Your task to perform on an android device: set the stopwatch Image 0: 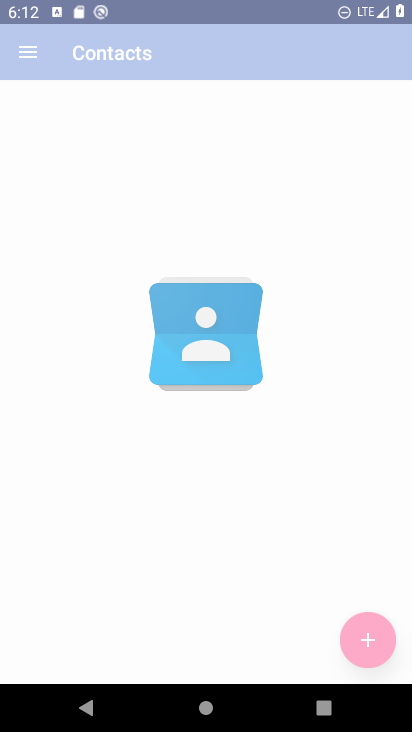
Step 0: drag from (215, 668) to (214, 175)
Your task to perform on an android device: set the stopwatch Image 1: 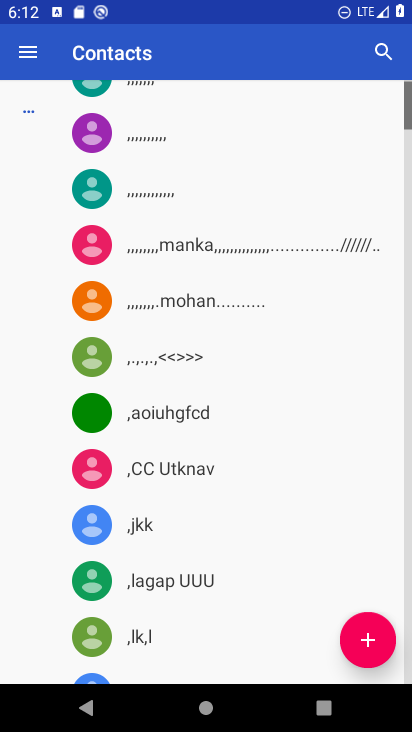
Step 1: press home button
Your task to perform on an android device: set the stopwatch Image 2: 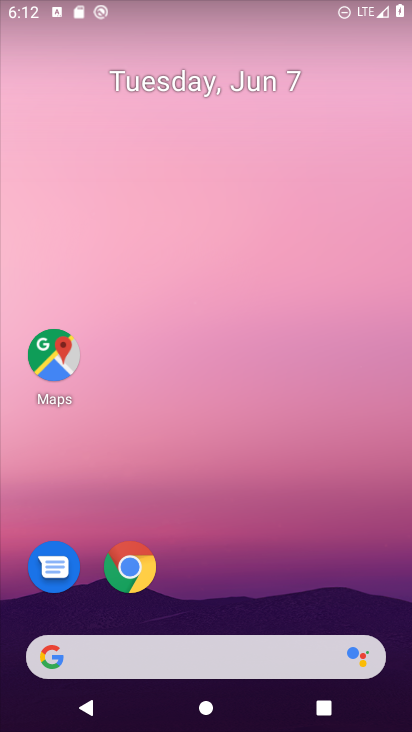
Step 2: drag from (232, 635) to (221, 36)
Your task to perform on an android device: set the stopwatch Image 3: 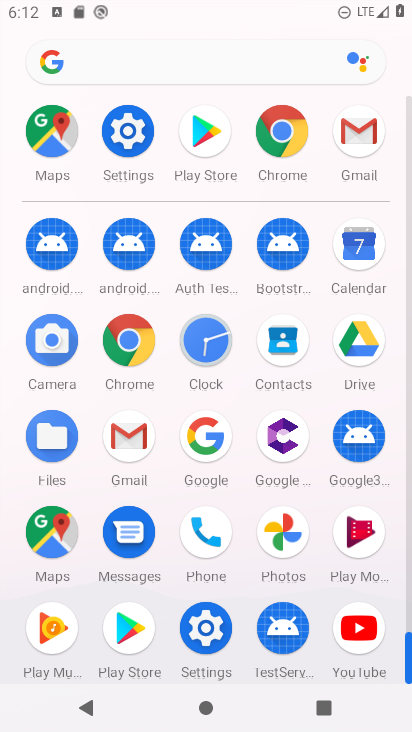
Step 3: click (203, 345)
Your task to perform on an android device: set the stopwatch Image 4: 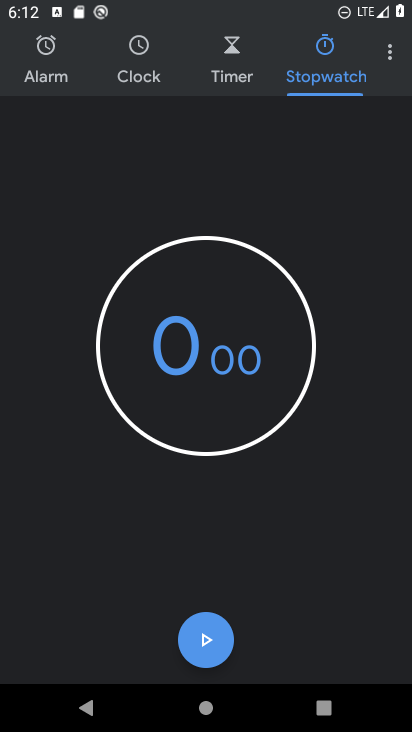
Step 4: click (202, 641)
Your task to perform on an android device: set the stopwatch Image 5: 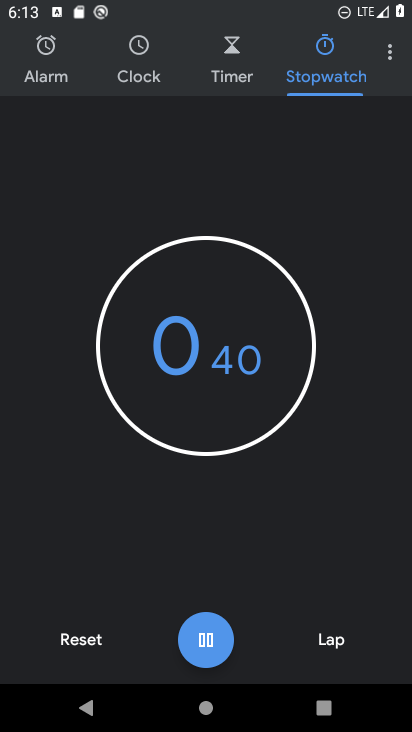
Step 5: task complete